Your task to perform on an android device: Open Google Chrome Image 0: 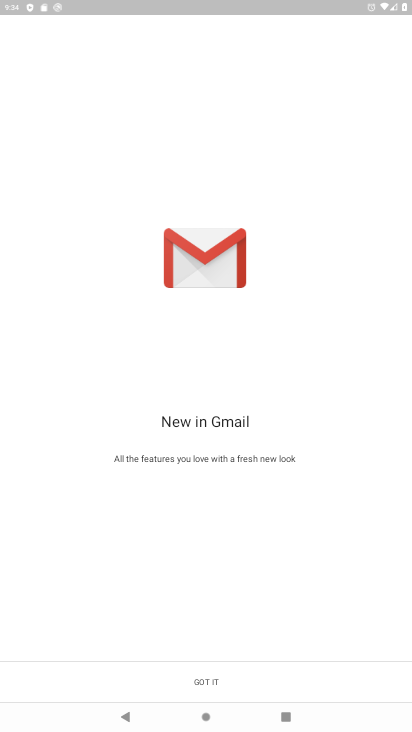
Step 0: press home button
Your task to perform on an android device: Open Google Chrome Image 1: 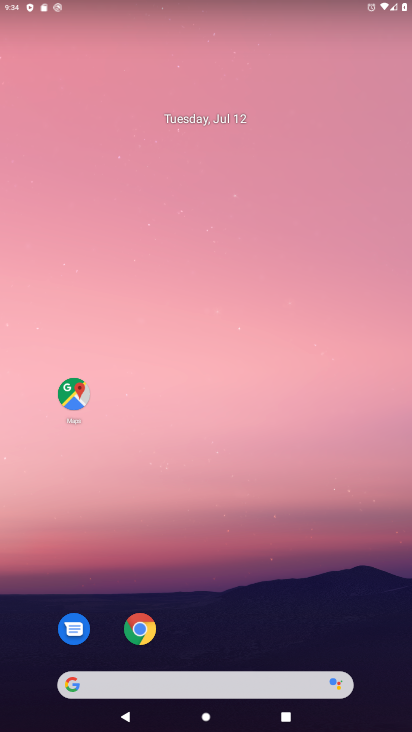
Step 1: click (139, 629)
Your task to perform on an android device: Open Google Chrome Image 2: 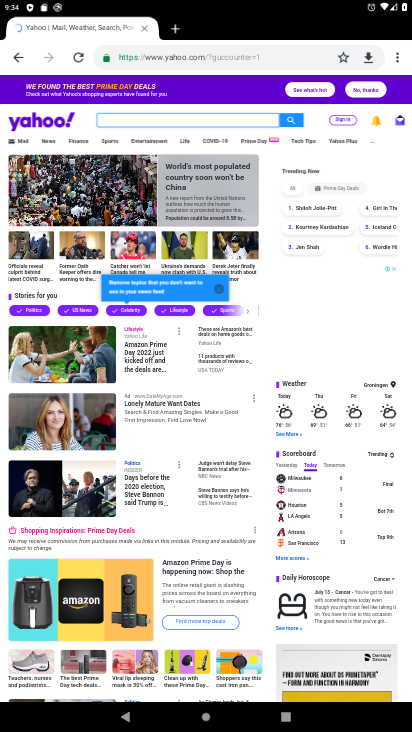
Step 2: task complete